Your task to perform on an android device: delete location history Image 0: 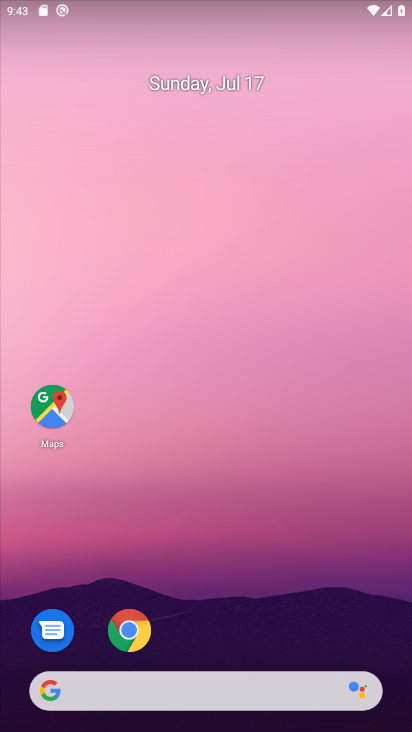
Step 0: drag from (195, 566) to (235, 0)
Your task to perform on an android device: delete location history Image 1: 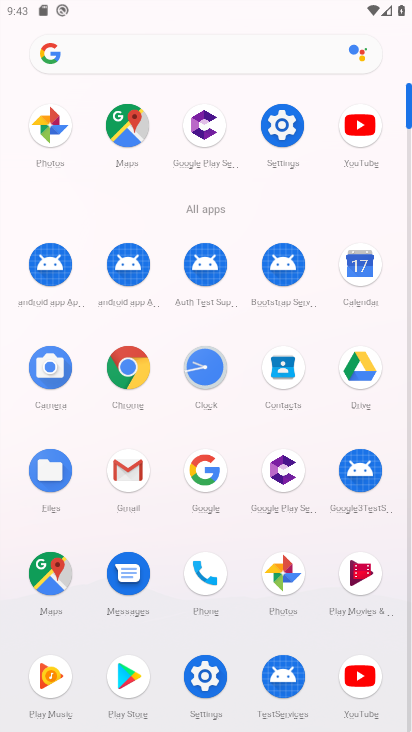
Step 1: click (49, 586)
Your task to perform on an android device: delete location history Image 2: 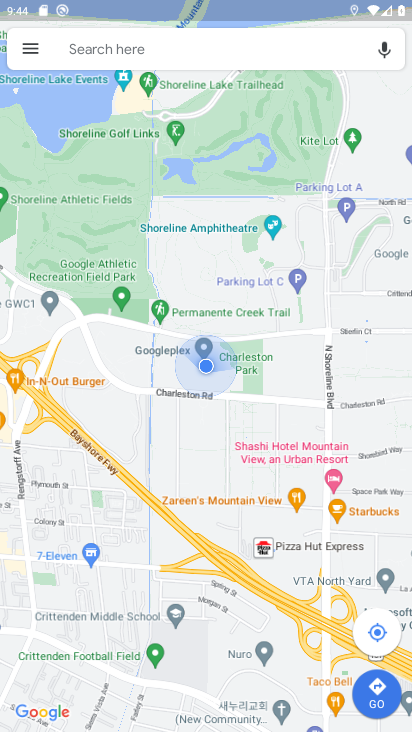
Step 2: click (32, 40)
Your task to perform on an android device: delete location history Image 3: 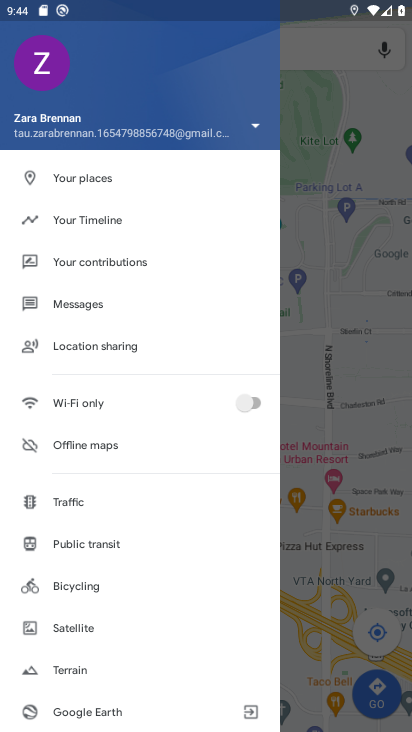
Step 3: click (96, 221)
Your task to perform on an android device: delete location history Image 4: 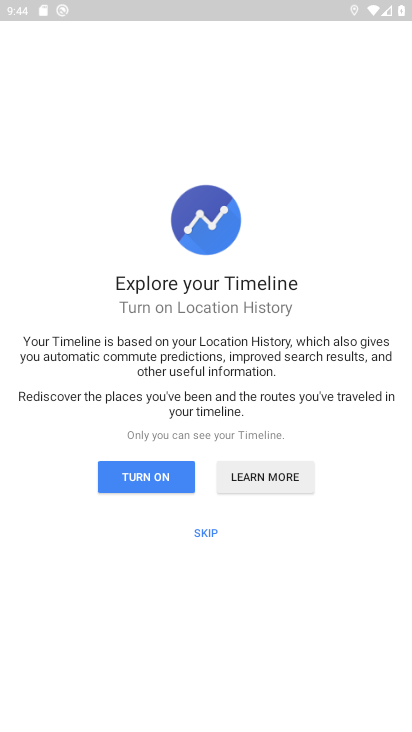
Step 4: click (205, 528)
Your task to perform on an android device: delete location history Image 5: 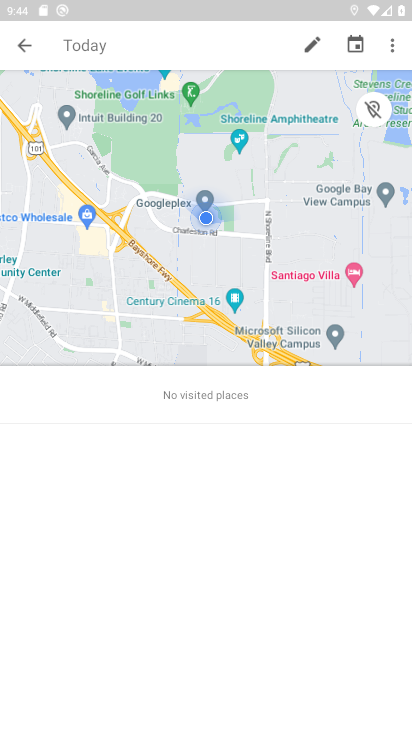
Step 5: click (396, 53)
Your task to perform on an android device: delete location history Image 6: 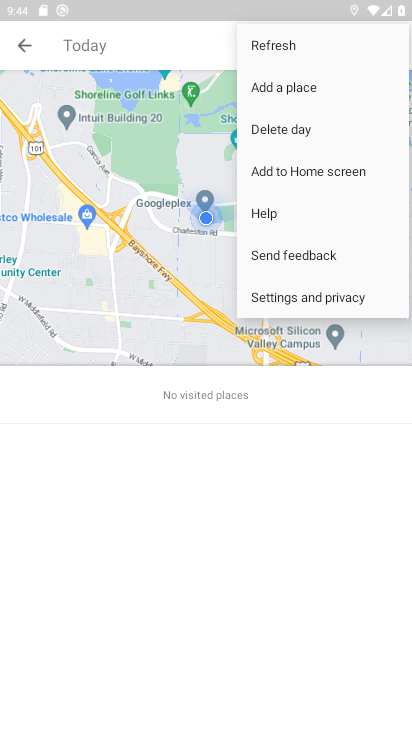
Step 6: click (308, 303)
Your task to perform on an android device: delete location history Image 7: 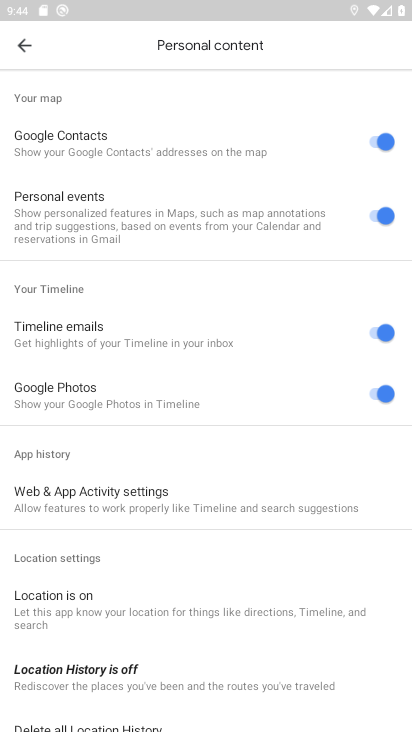
Step 7: drag from (145, 638) to (168, 353)
Your task to perform on an android device: delete location history Image 8: 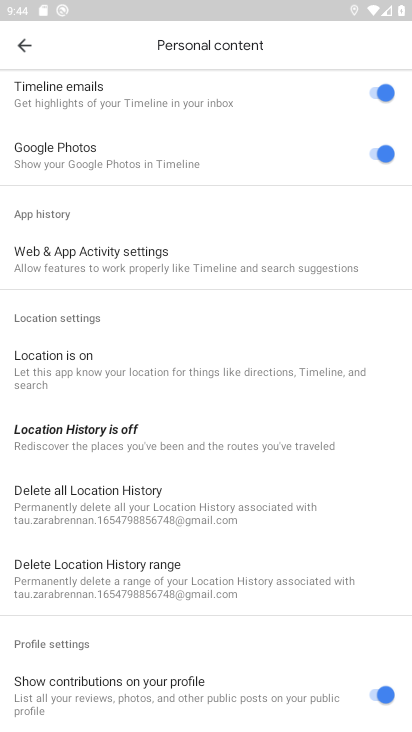
Step 8: click (123, 496)
Your task to perform on an android device: delete location history Image 9: 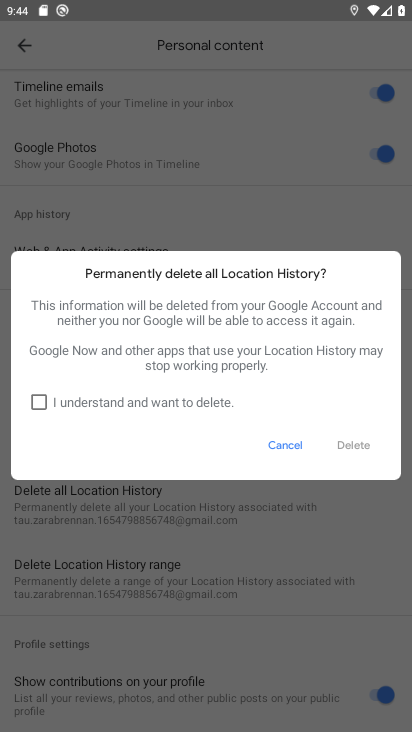
Step 9: click (34, 406)
Your task to perform on an android device: delete location history Image 10: 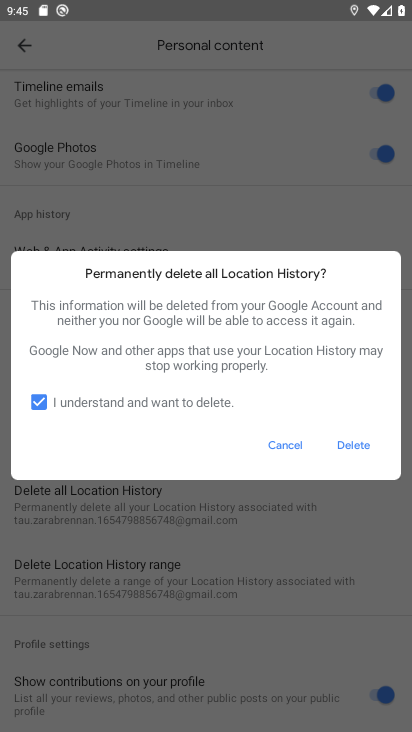
Step 10: click (356, 450)
Your task to perform on an android device: delete location history Image 11: 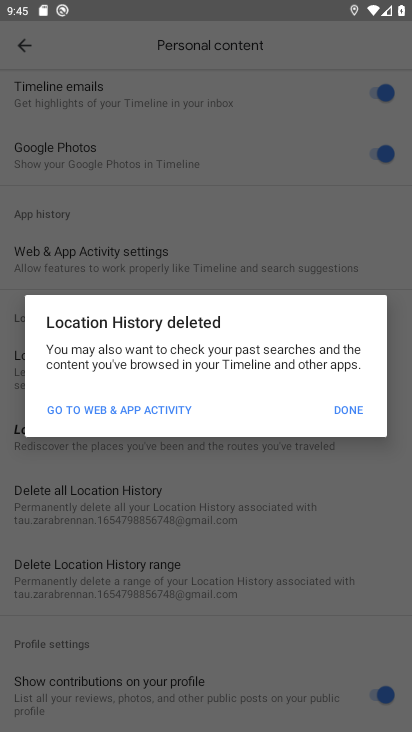
Step 11: click (353, 406)
Your task to perform on an android device: delete location history Image 12: 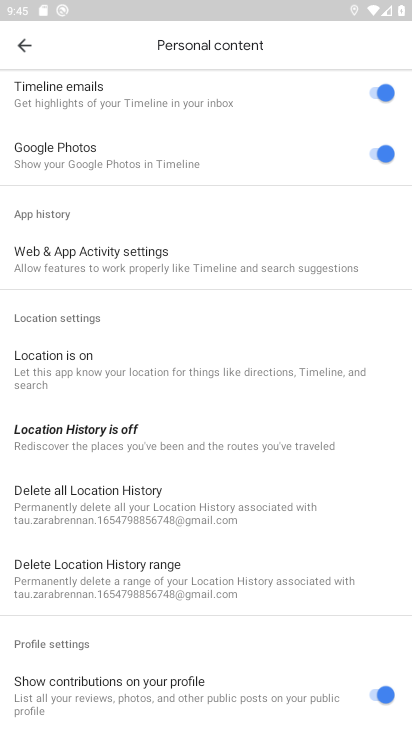
Step 12: task complete